Your task to perform on an android device: Search for "duracell triple a" on bestbuy, select the first entry, add it to the cart, then select checkout. Image 0: 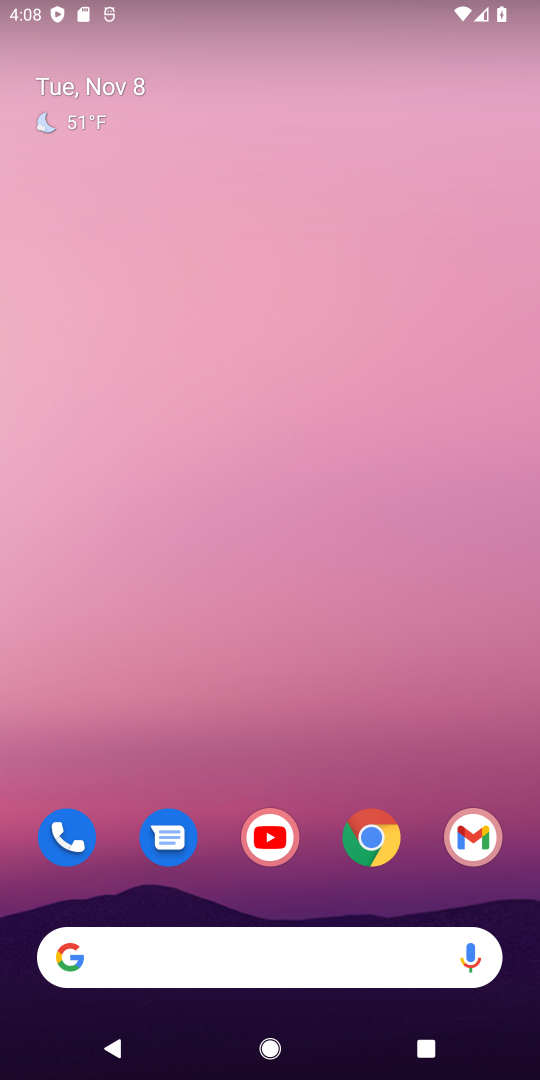
Step 0: click (388, 847)
Your task to perform on an android device: Search for "duracell triple a" on bestbuy, select the first entry, add it to the cart, then select checkout. Image 1: 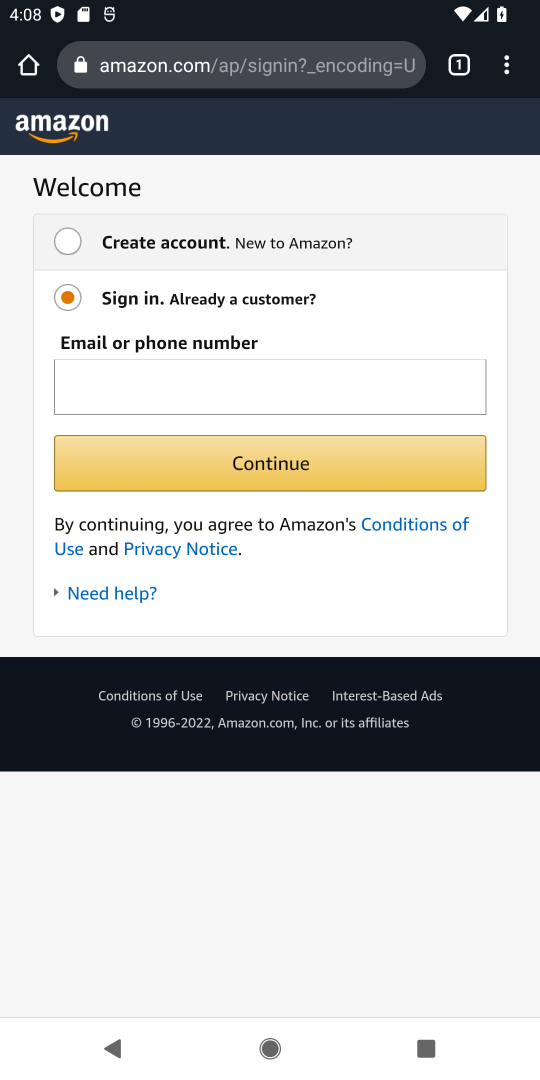
Step 1: click (114, 76)
Your task to perform on an android device: Search for "duracell triple a" on bestbuy, select the first entry, add it to the cart, then select checkout. Image 2: 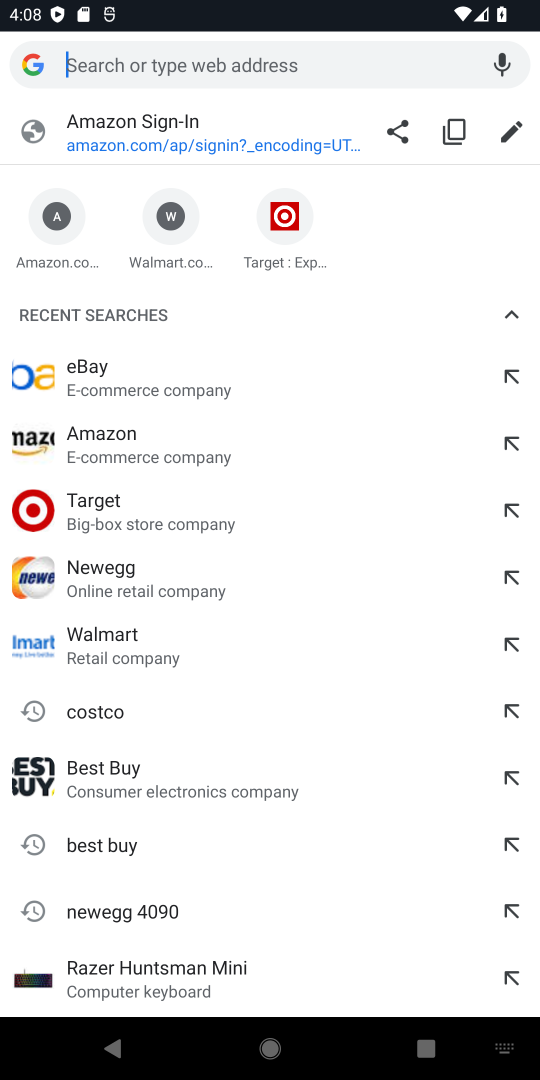
Step 2: type "bestbuy"
Your task to perform on an android device: Search for "duracell triple a" on bestbuy, select the first entry, add it to the cart, then select checkout. Image 3: 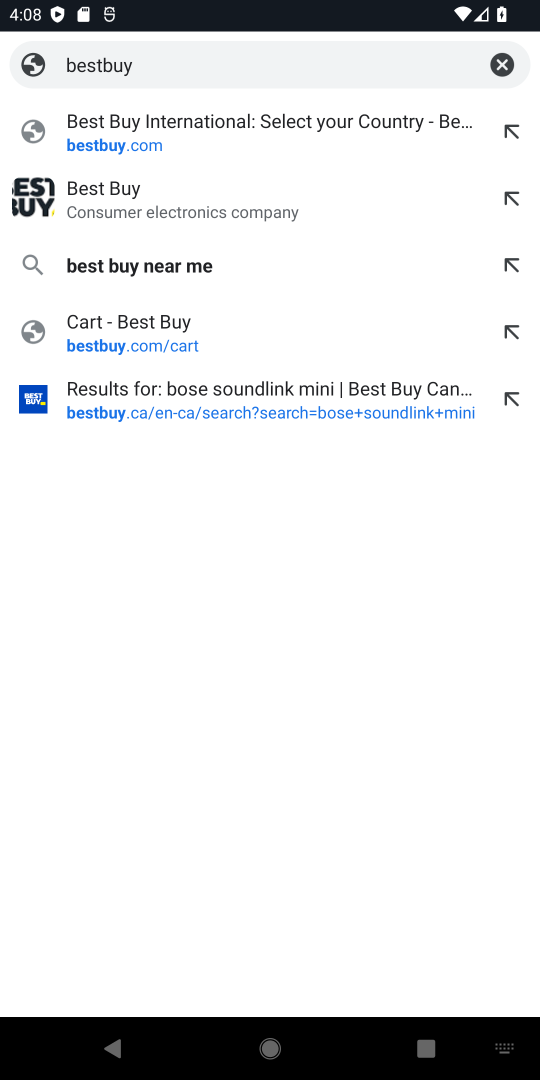
Step 3: click (75, 198)
Your task to perform on an android device: Search for "duracell triple a" on bestbuy, select the first entry, add it to the cart, then select checkout. Image 4: 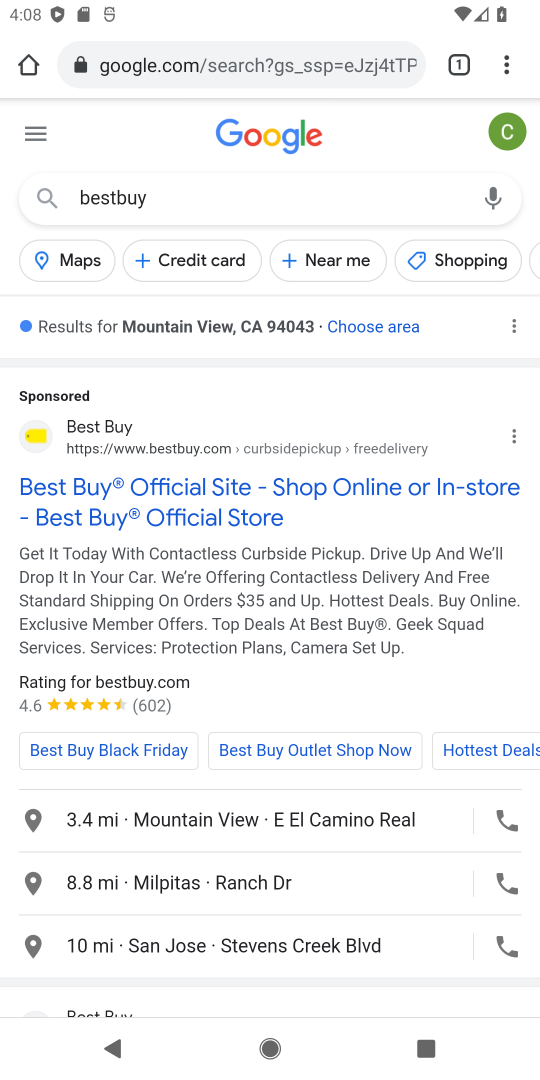
Step 4: click (147, 483)
Your task to perform on an android device: Search for "duracell triple a" on bestbuy, select the first entry, add it to the cart, then select checkout. Image 5: 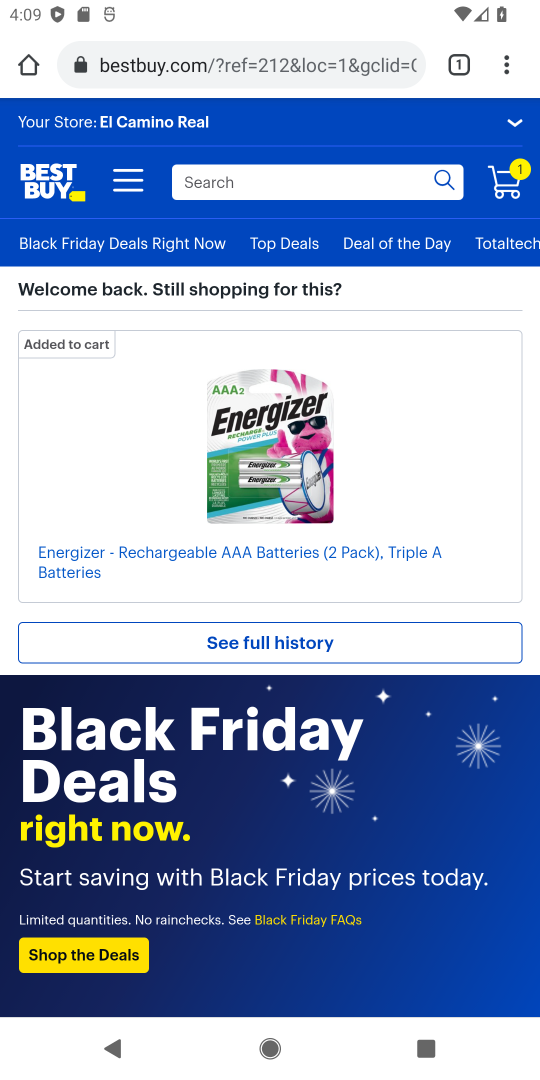
Step 5: click (240, 174)
Your task to perform on an android device: Search for "duracell triple a" on bestbuy, select the first entry, add it to the cart, then select checkout. Image 6: 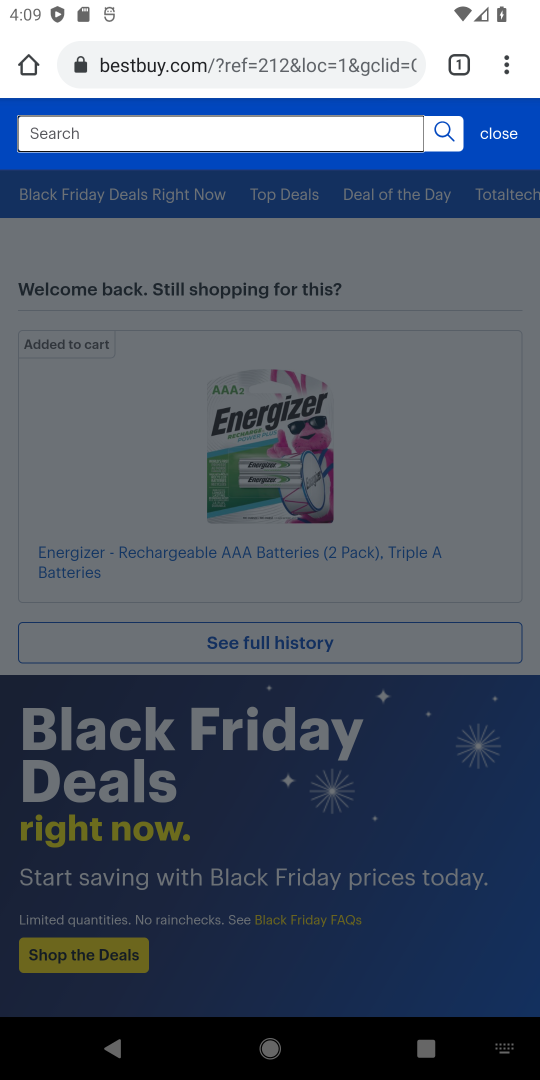
Step 6: type "duracell triple"
Your task to perform on an android device: Search for "duracell triple a" on bestbuy, select the first entry, add it to the cart, then select checkout. Image 7: 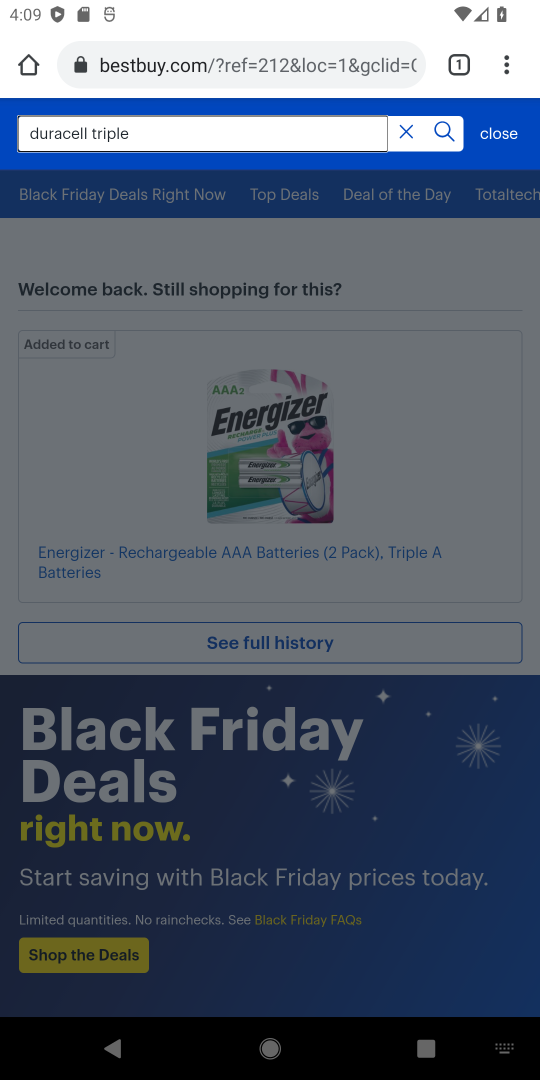
Step 7: click (444, 135)
Your task to perform on an android device: Search for "duracell triple a" on bestbuy, select the first entry, add it to the cart, then select checkout. Image 8: 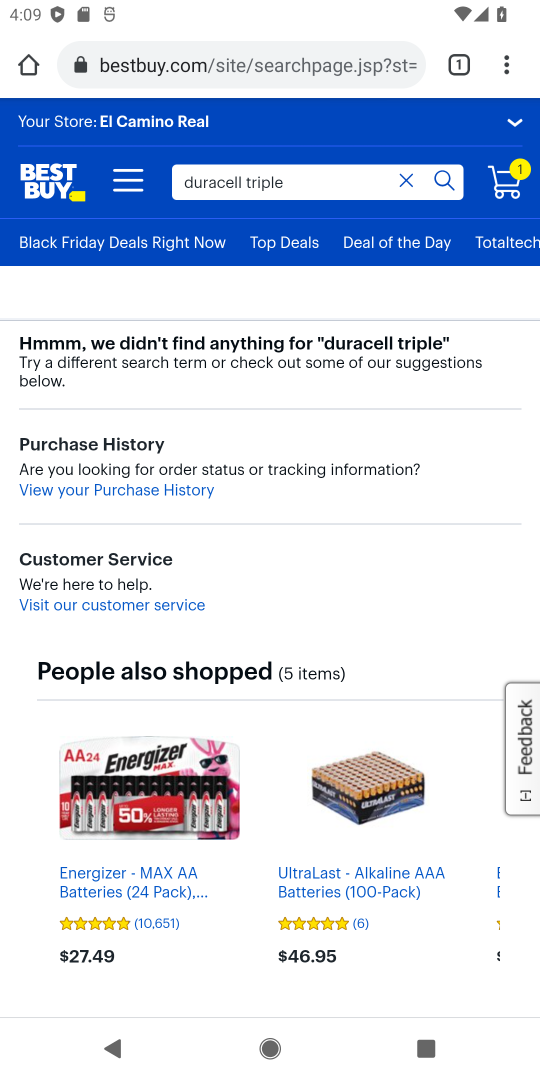
Step 8: drag from (168, 854) to (331, 226)
Your task to perform on an android device: Search for "duracell triple a" on bestbuy, select the first entry, add it to the cart, then select checkout. Image 9: 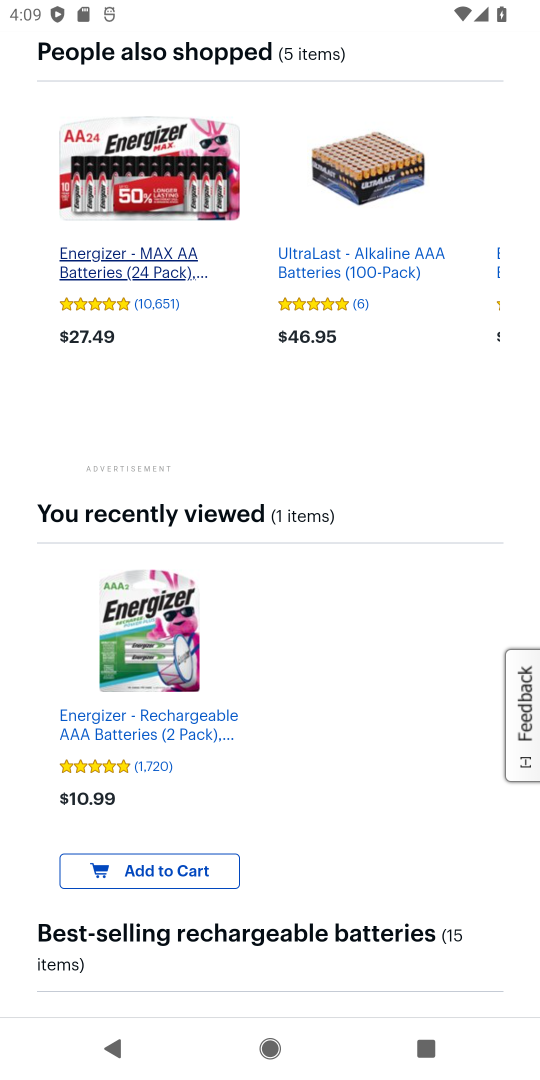
Step 9: click (145, 618)
Your task to perform on an android device: Search for "duracell triple a" on bestbuy, select the first entry, add it to the cart, then select checkout. Image 10: 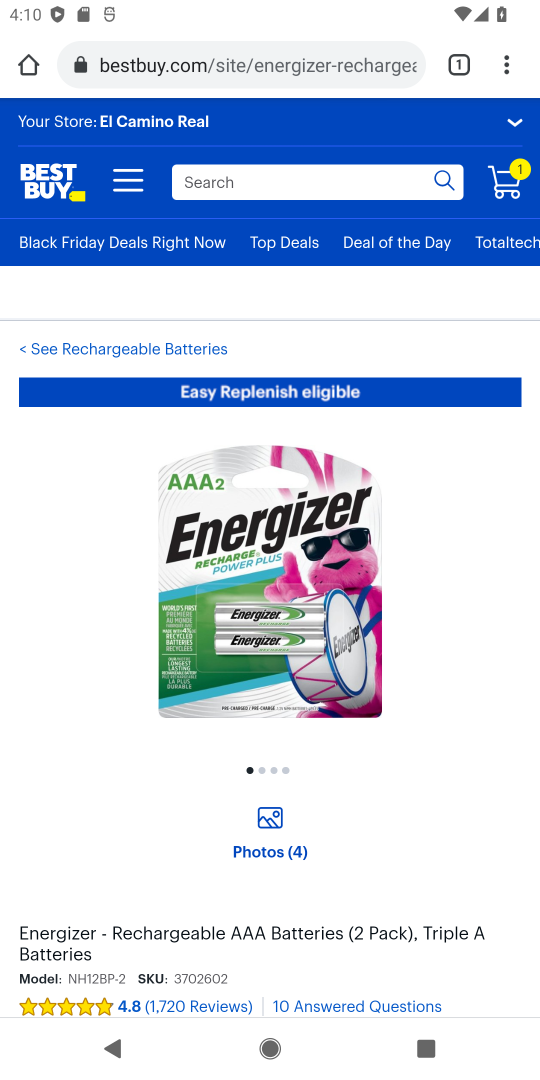
Step 10: drag from (159, 772) to (262, 177)
Your task to perform on an android device: Search for "duracell triple a" on bestbuy, select the first entry, add it to the cart, then select checkout. Image 11: 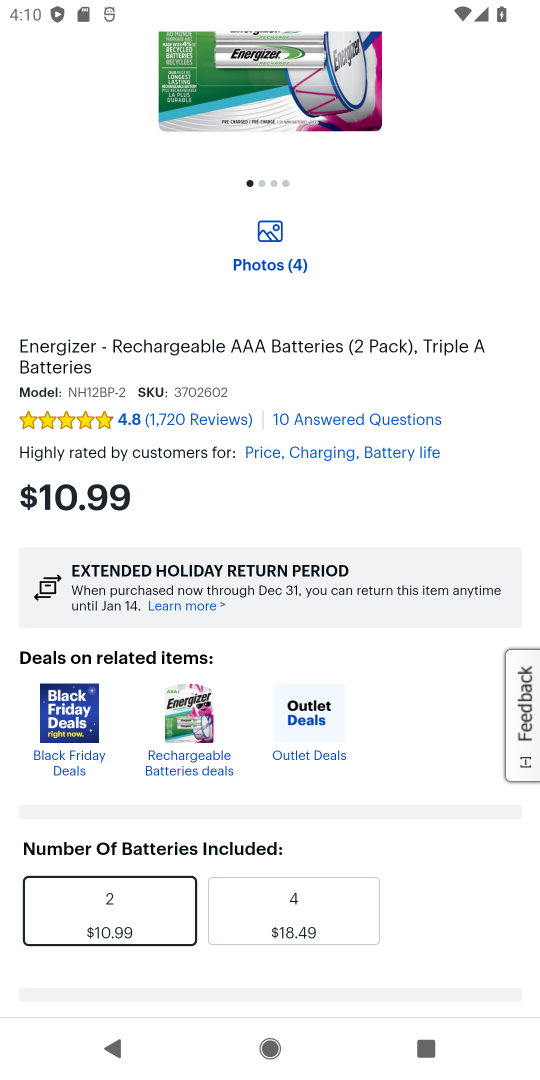
Step 11: drag from (186, 804) to (181, 148)
Your task to perform on an android device: Search for "duracell triple a" on bestbuy, select the first entry, add it to the cart, then select checkout. Image 12: 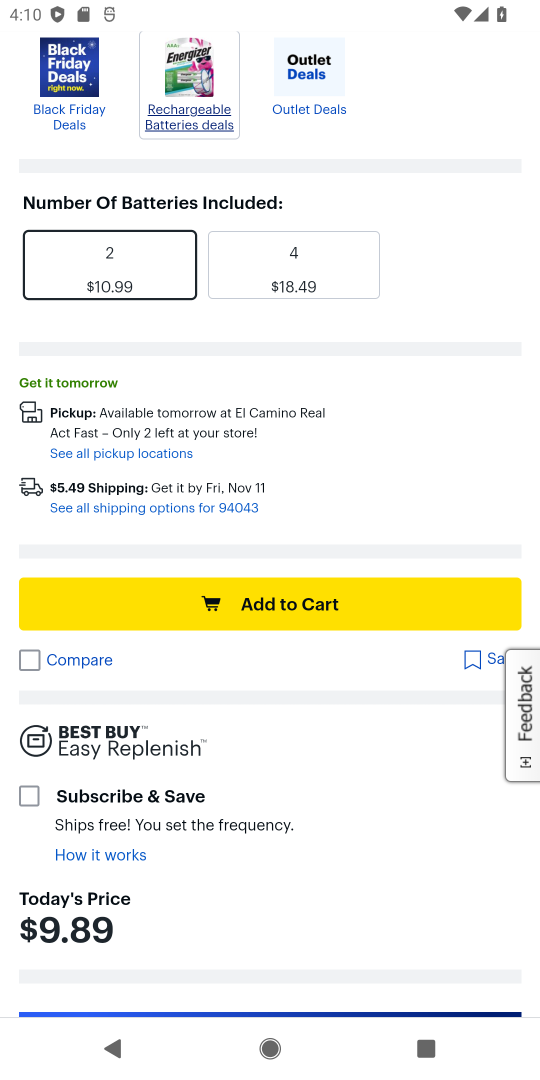
Step 12: click (291, 607)
Your task to perform on an android device: Search for "duracell triple a" on bestbuy, select the first entry, add it to the cart, then select checkout. Image 13: 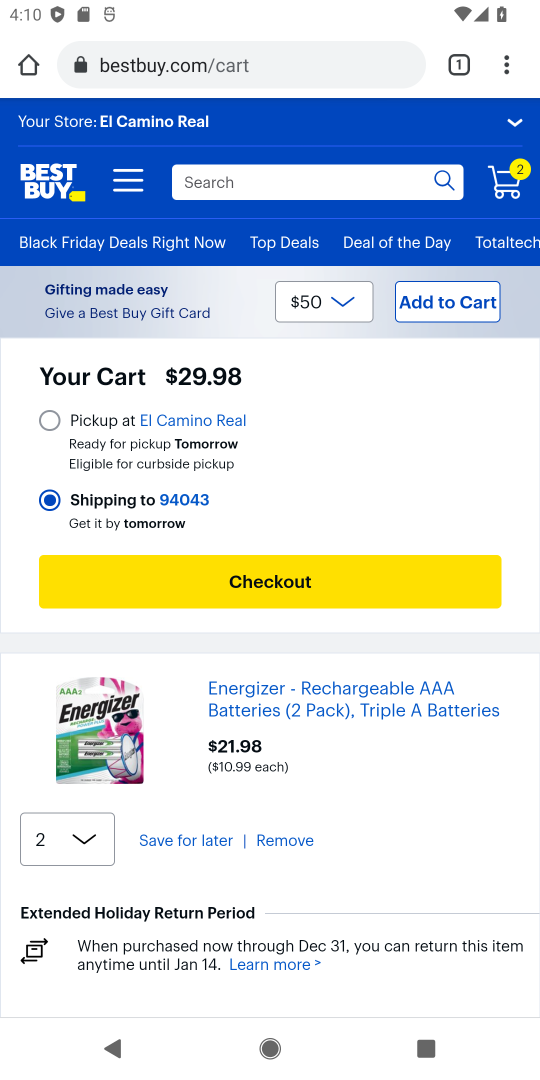
Step 13: click (322, 592)
Your task to perform on an android device: Search for "duracell triple a" on bestbuy, select the first entry, add it to the cart, then select checkout. Image 14: 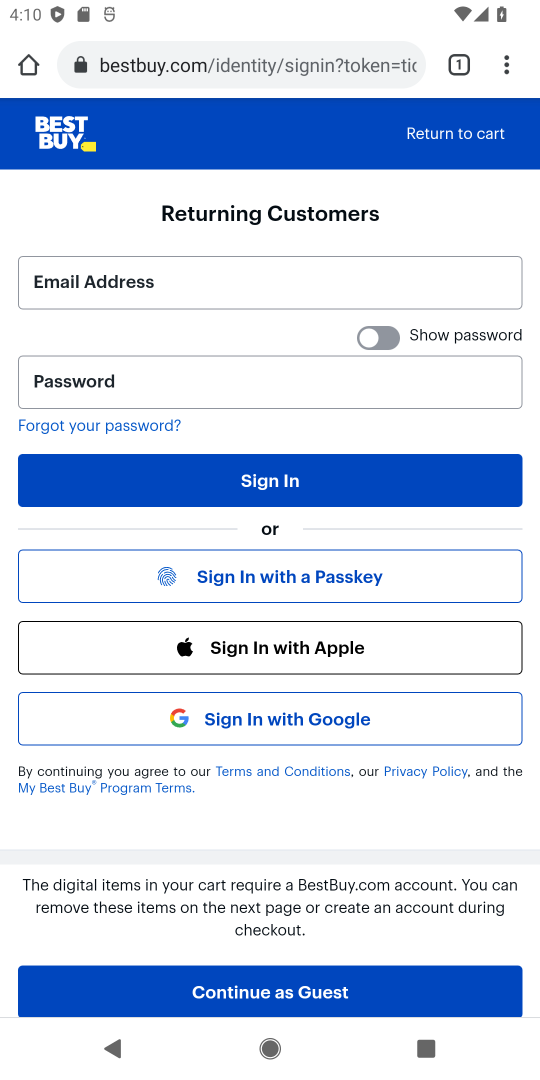
Step 14: press back button
Your task to perform on an android device: Search for "duracell triple a" on bestbuy, select the first entry, add it to the cart, then select checkout. Image 15: 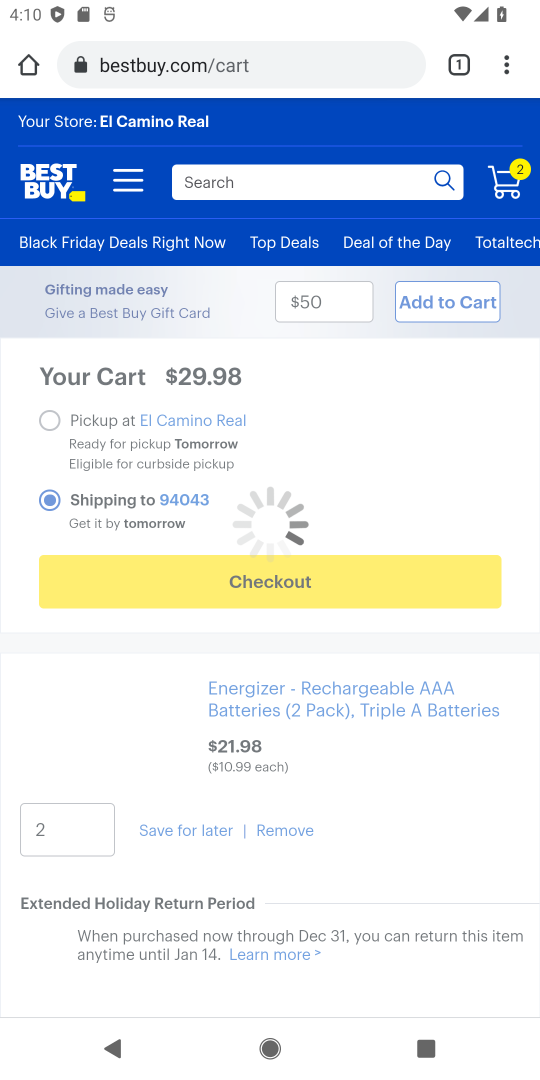
Step 15: click (512, 190)
Your task to perform on an android device: Search for "duracell triple a" on bestbuy, select the first entry, add it to the cart, then select checkout. Image 16: 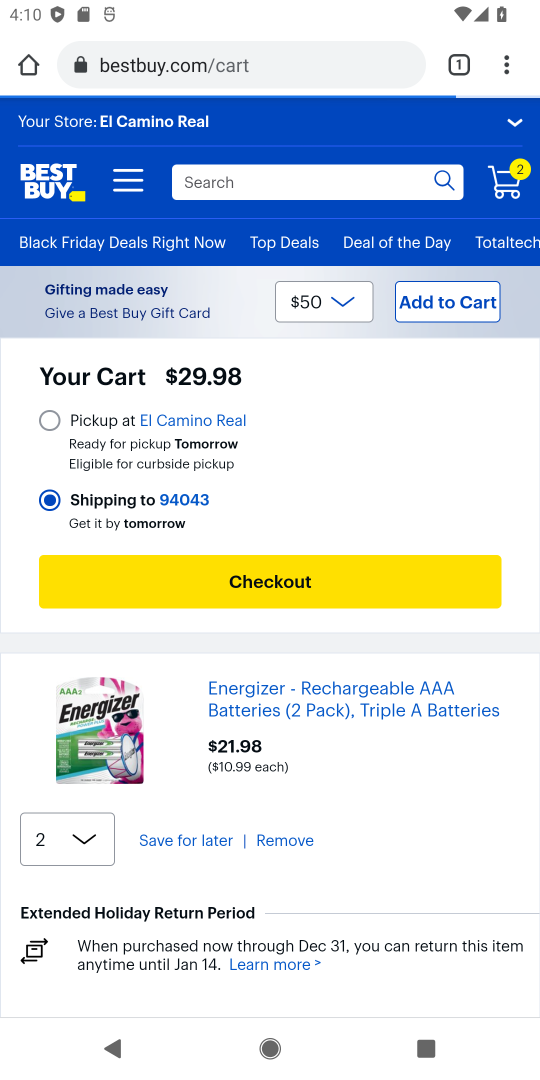
Step 16: drag from (323, 849) to (294, 910)
Your task to perform on an android device: Search for "duracell triple a" on bestbuy, select the first entry, add it to the cart, then select checkout. Image 17: 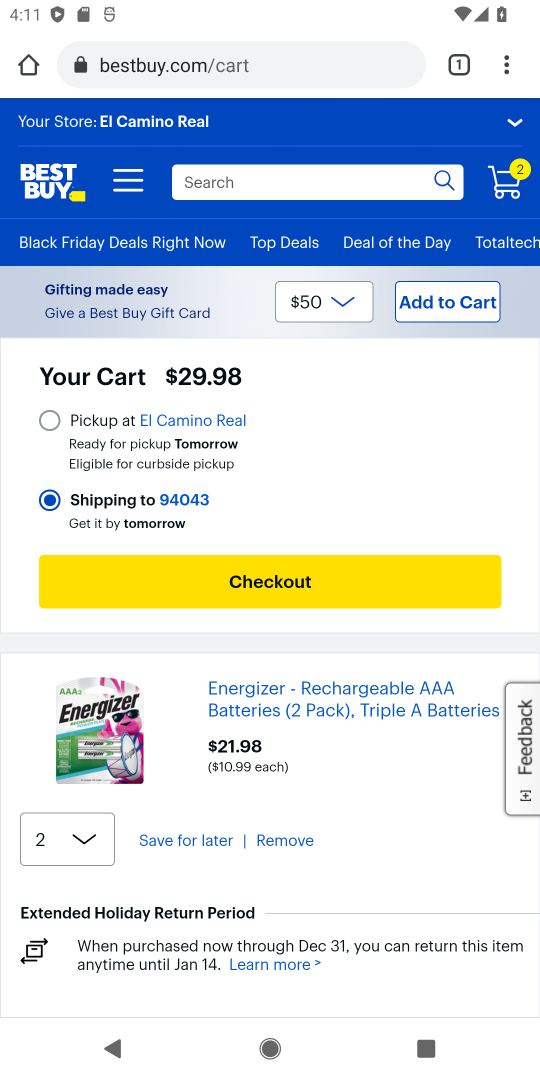
Step 17: click (308, 593)
Your task to perform on an android device: Search for "duracell triple a" on bestbuy, select the first entry, add it to the cart, then select checkout. Image 18: 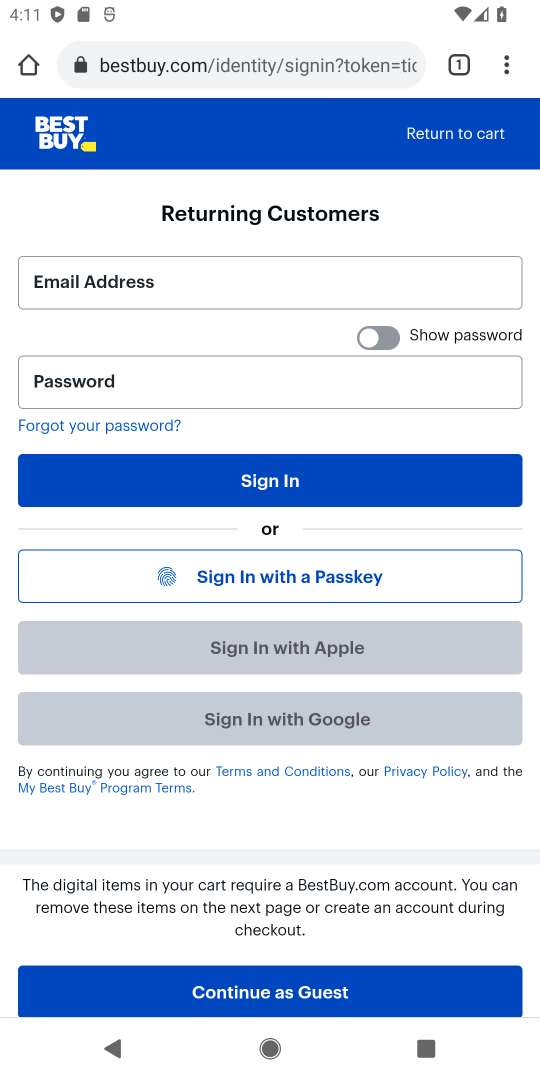
Step 18: task complete